Your task to perform on an android device: check storage Image 0: 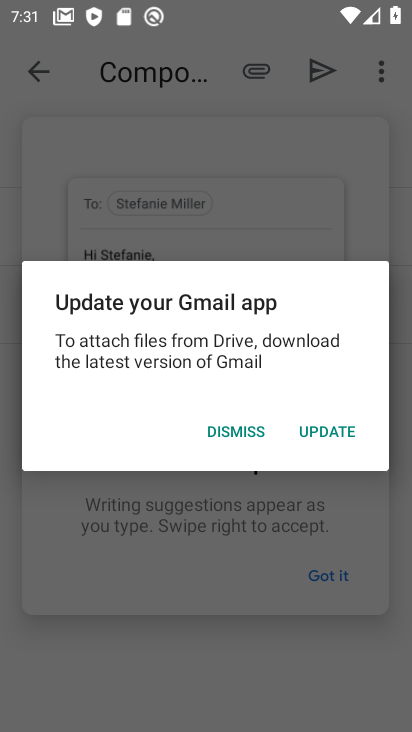
Step 0: press home button
Your task to perform on an android device: check storage Image 1: 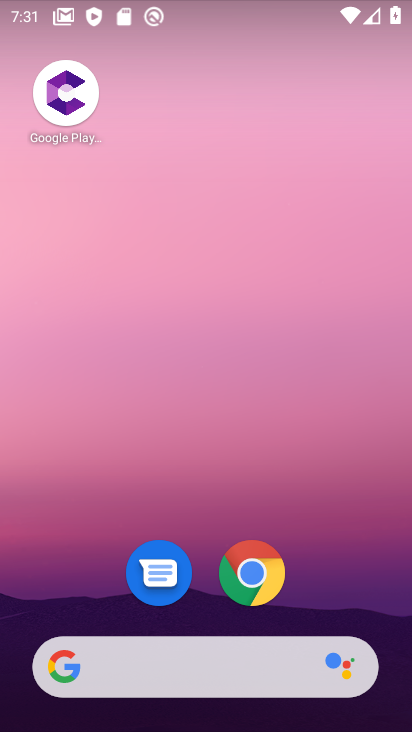
Step 1: drag from (328, 593) to (374, 3)
Your task to perform on an android device: check storage Image 2: 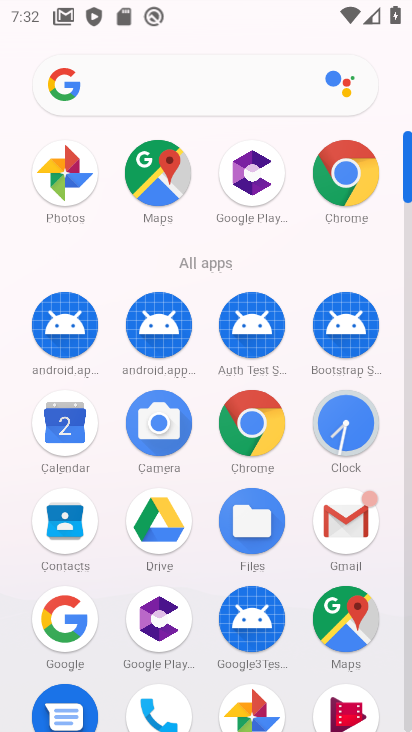
Step 2: drag from (391, 588) to (397, 341)
Your task to perform on an android device: check storage Image 3: 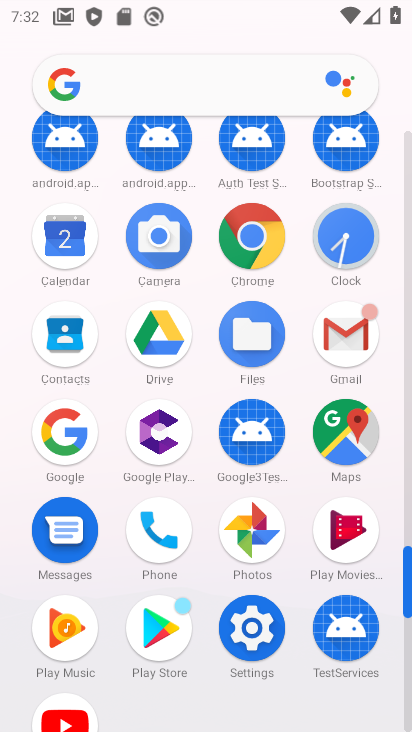
Step 3: click (268, 649)
Your task to perform on an android device: check storage Image 4: 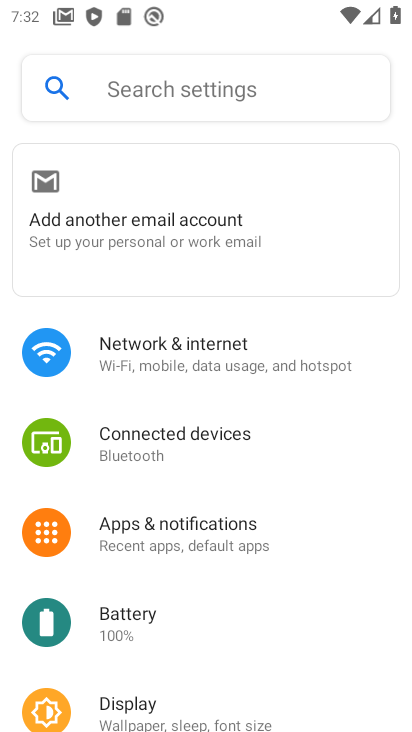
Step 4: drag from (270, 588) to (296, 140)
Your task to perform on an android device: check storage Image 5: 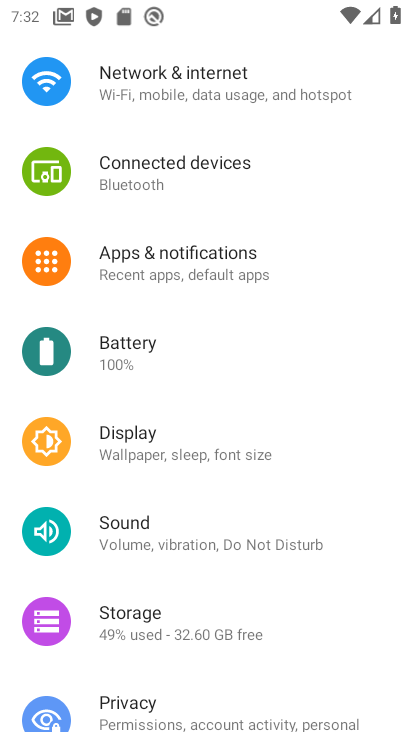
Step 5: click (187, 618)
Your task to perform on an android device: check storage Image 6: 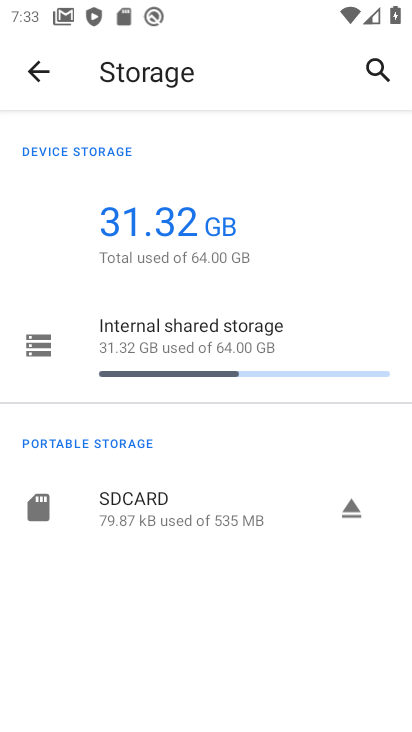
Step 6: task complete